Your task to perform on an android device: Go to ESPN.com Image 0: 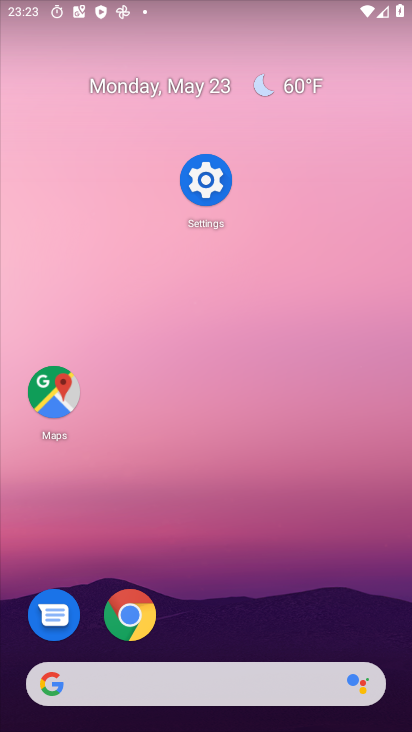
Step 0: drag from (203, 588) to (181, 71)
Your task to perform on an android device: Go to ESPN.com Image 1: 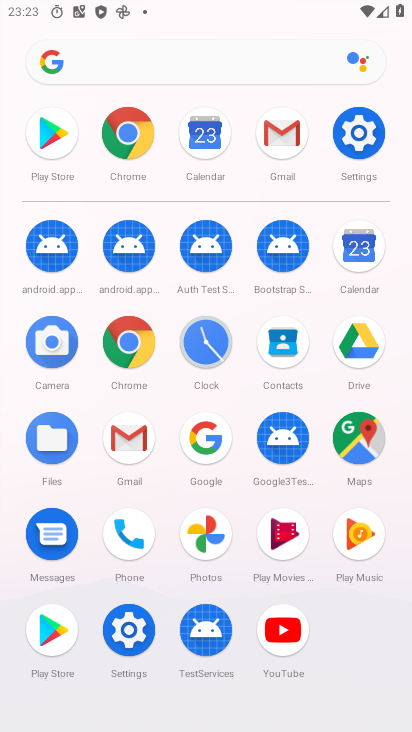
Step 1: click (210, 436)
Your task to perform on an android device: Go to ESPN.com Image 2: 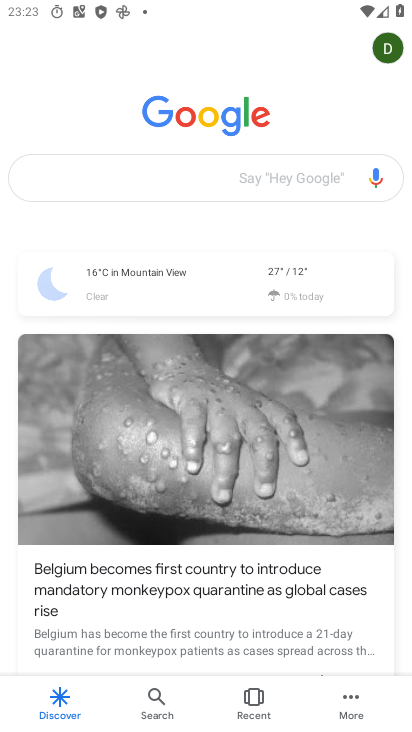
Step 2: click (168, 183)
Your task to perform on an android device: Go to ESPN.com Image 3: 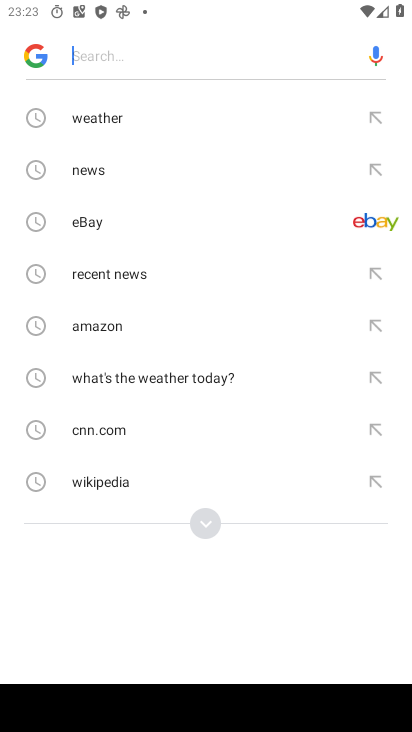
Step 3: type "espn.com"
Your task to perform on an android device: Go to ESPN.com Image 4: 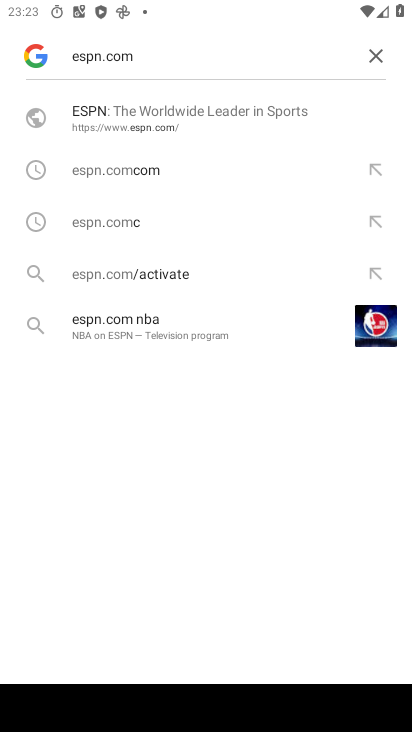
Step 4: click (165, 119)
Your task to perform on an android device: Go to ESPN.com Image 5: 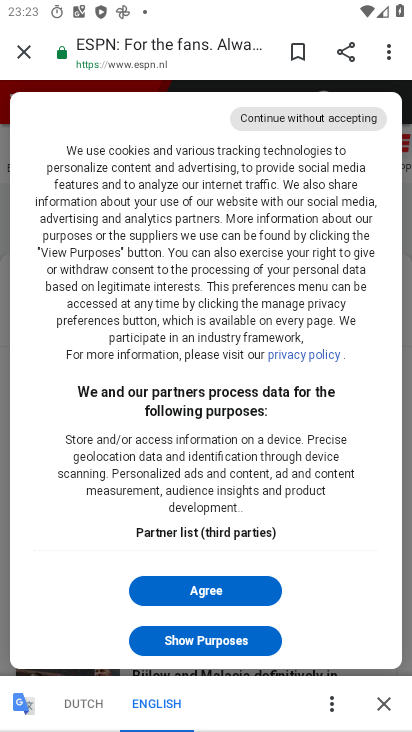
Step 5: task complete